Your task to perform on an android device: Search for a new grill on Home Depot Image 0: 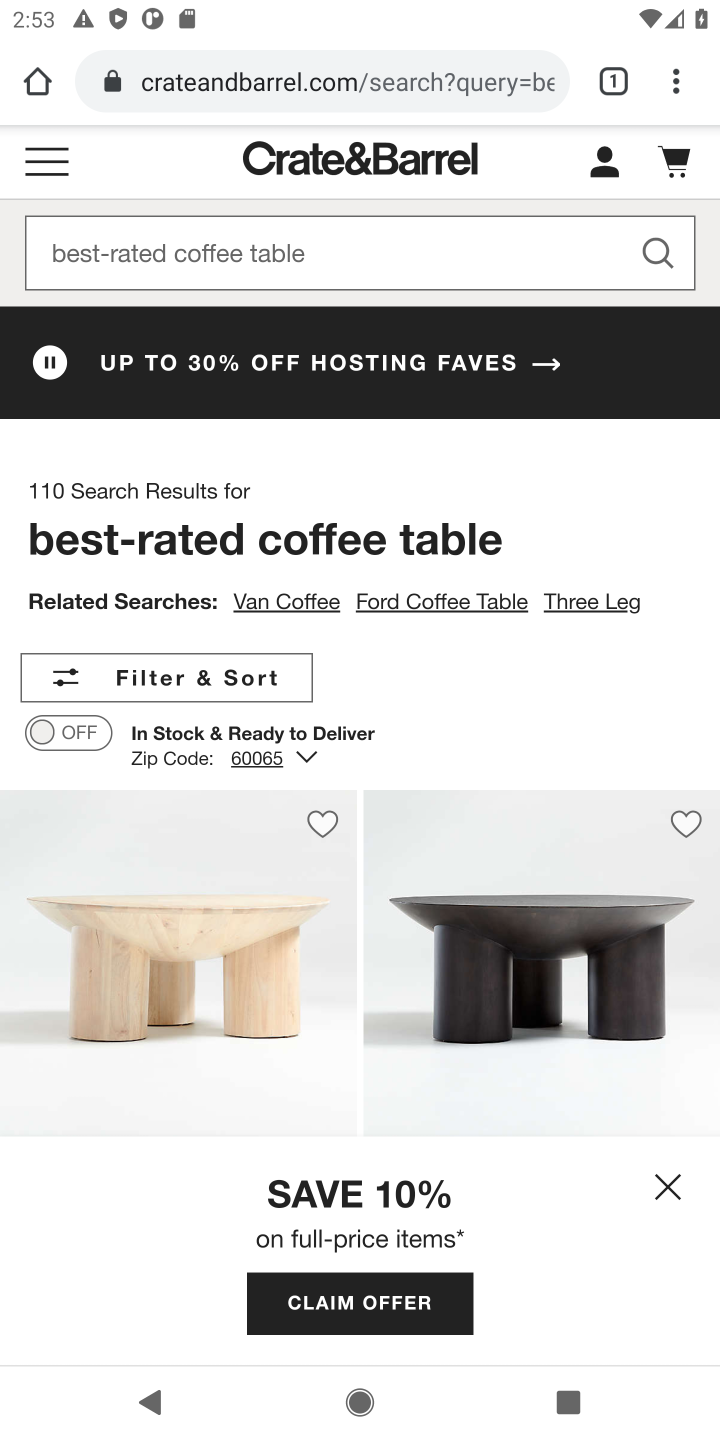
Step 0: click (439, 88)
Your task to perform on an android device: Search for a new grill on Home Depot Image 1: 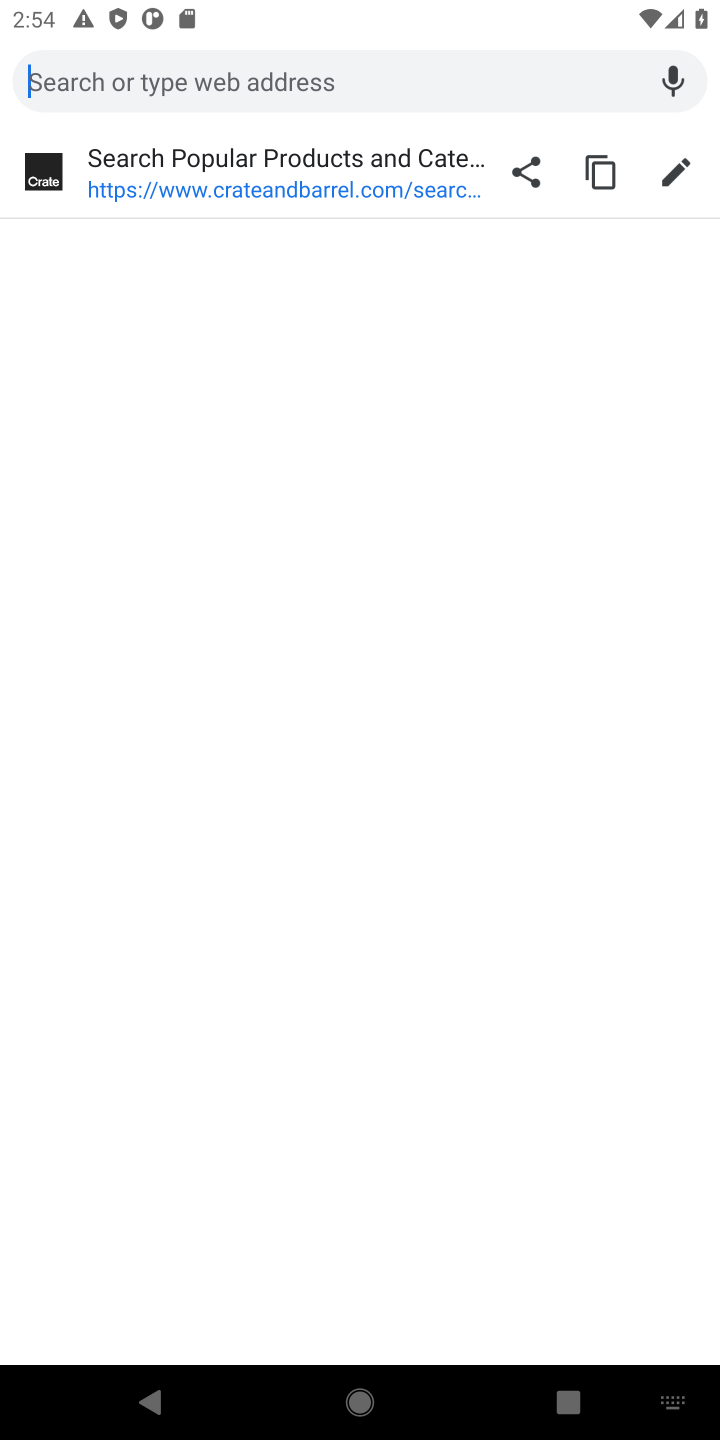
Step 1: click (433, 77)
Your task to perform on an android device: Search for a new grill on Home Depot Image 2: 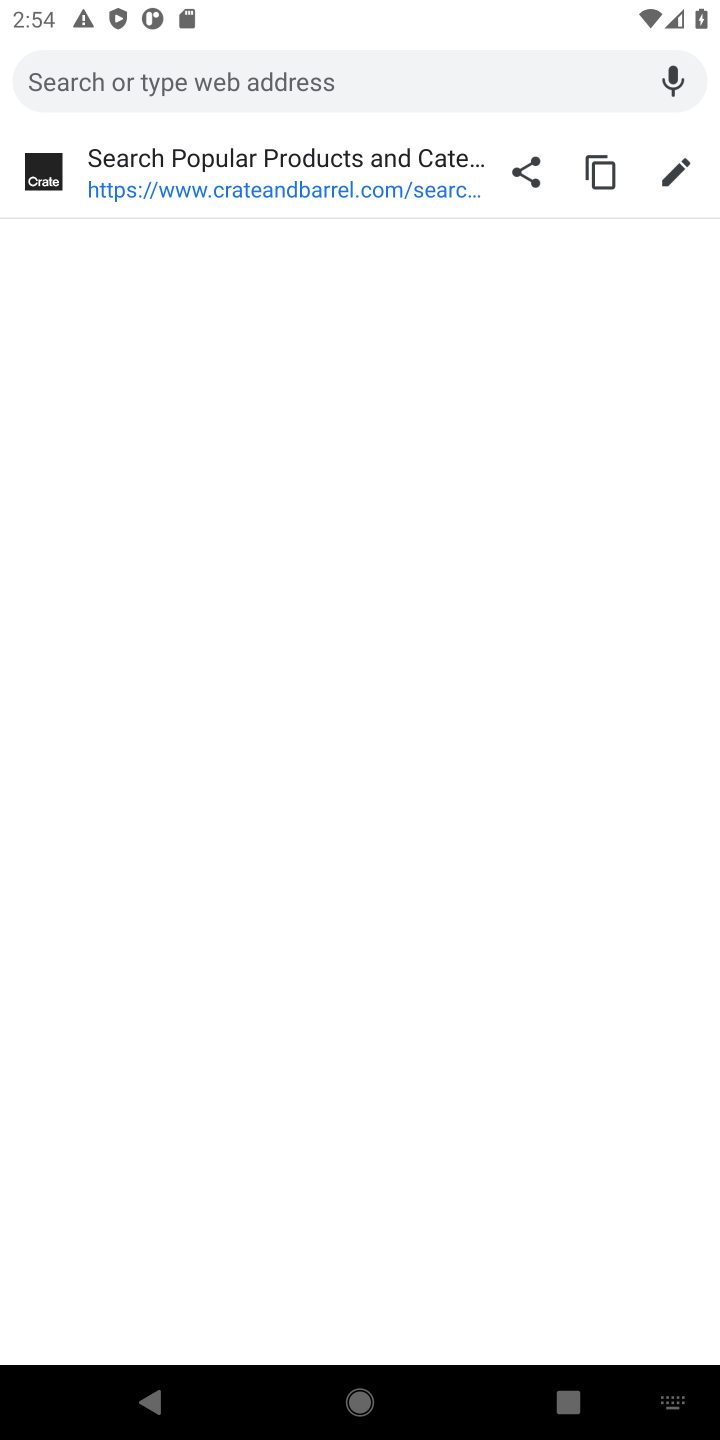
Step 2: type "Home Depot"
Your task to perform on an android device: Search for a new grill on Home Depot Image 3: 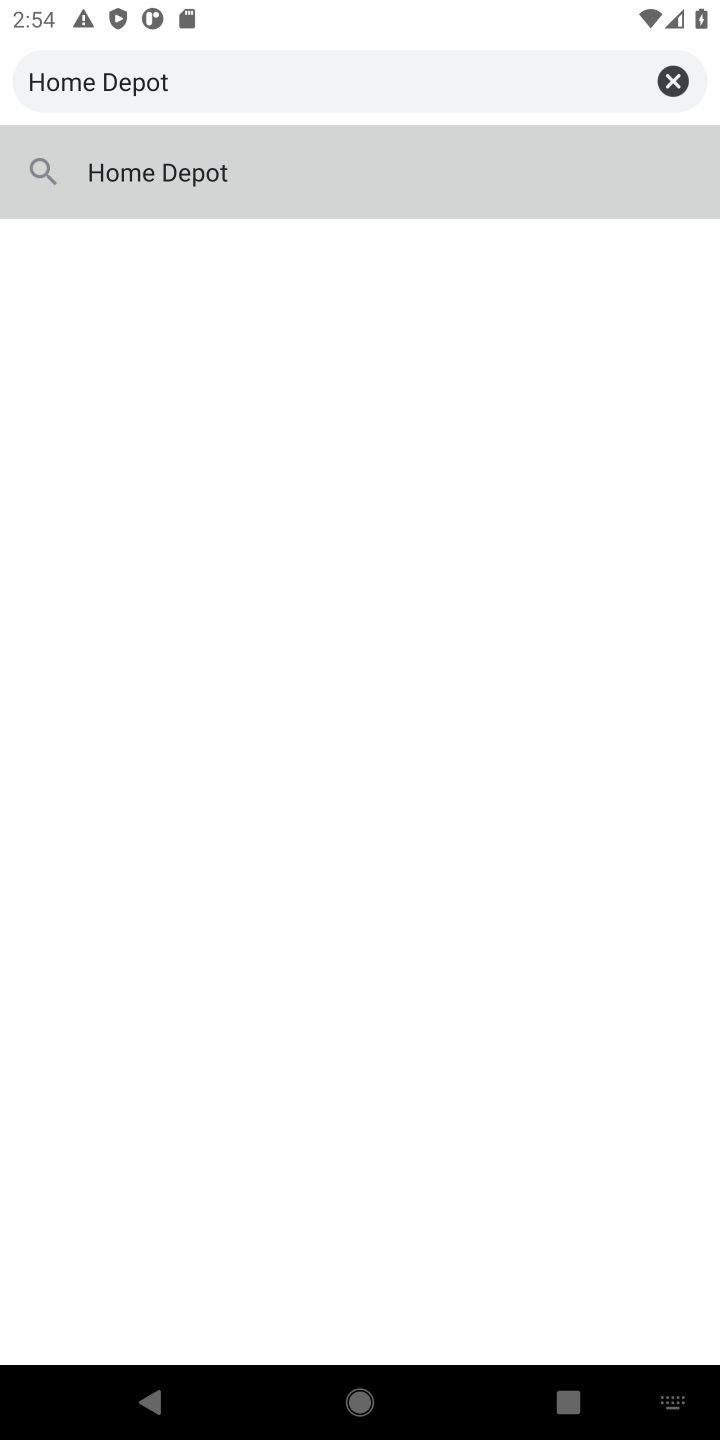
Step 3: type ""
Your task to perform on an android device: Search for a new grill on Home Depot Image 4: 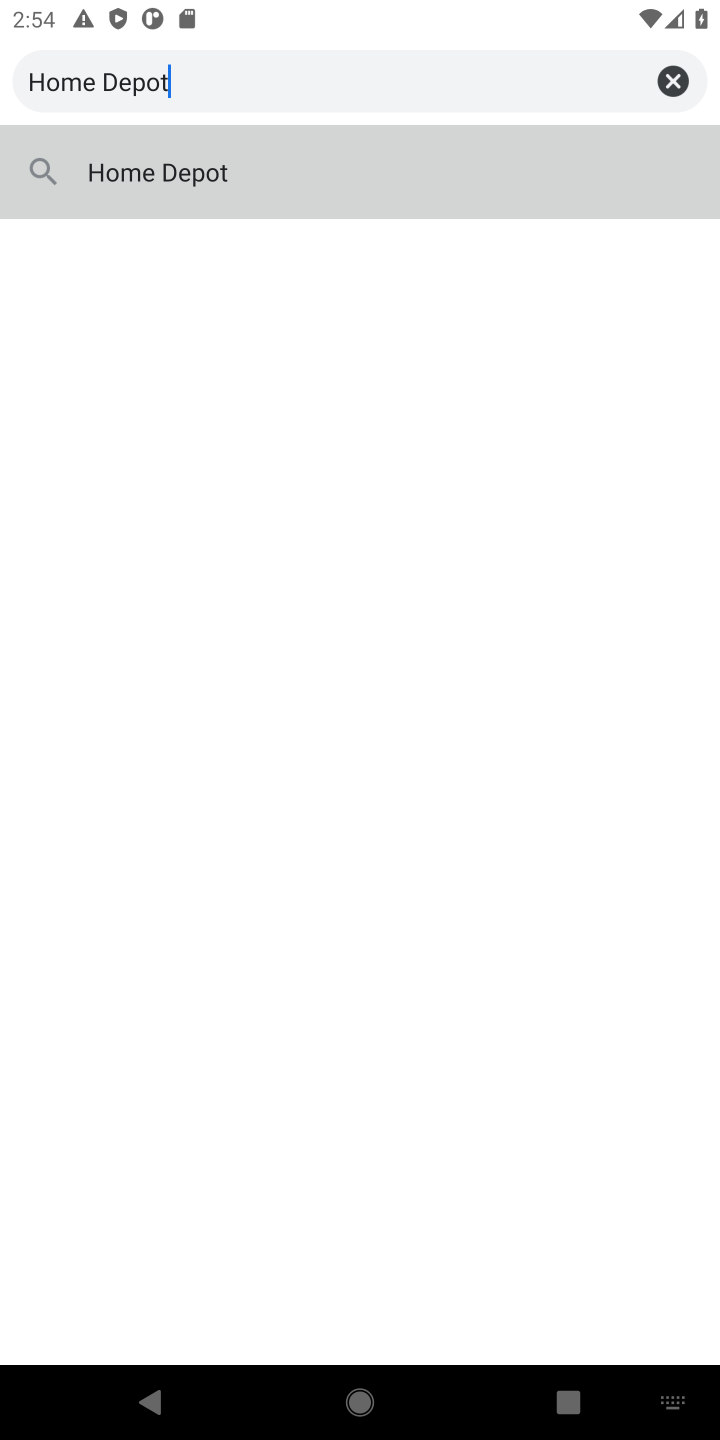
Step 4: click (424, 193)
Your task to perform on an android device: Search for a new grill on Home Depot Image 5: 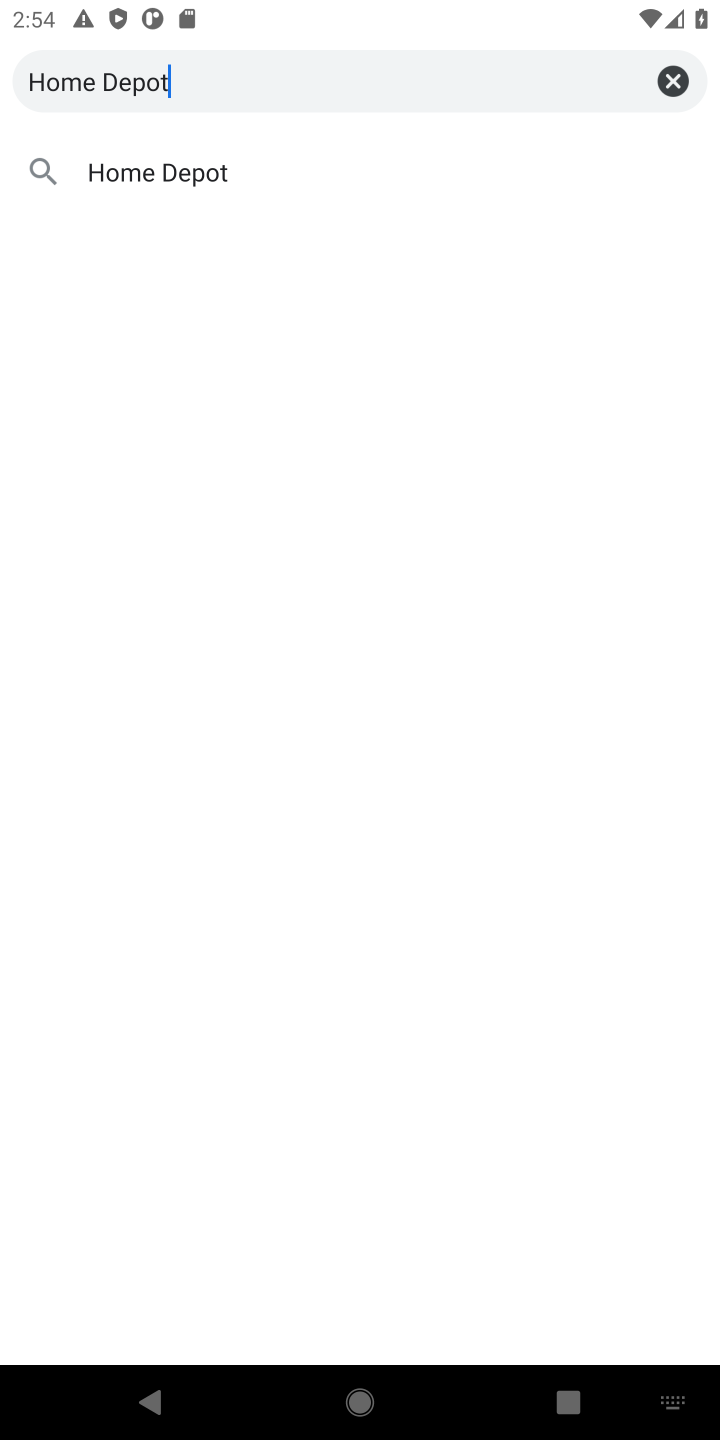
Step 5: click (221, 173)
Your task to perform on an android device: Search for a new grill on Home Depot Image 6: 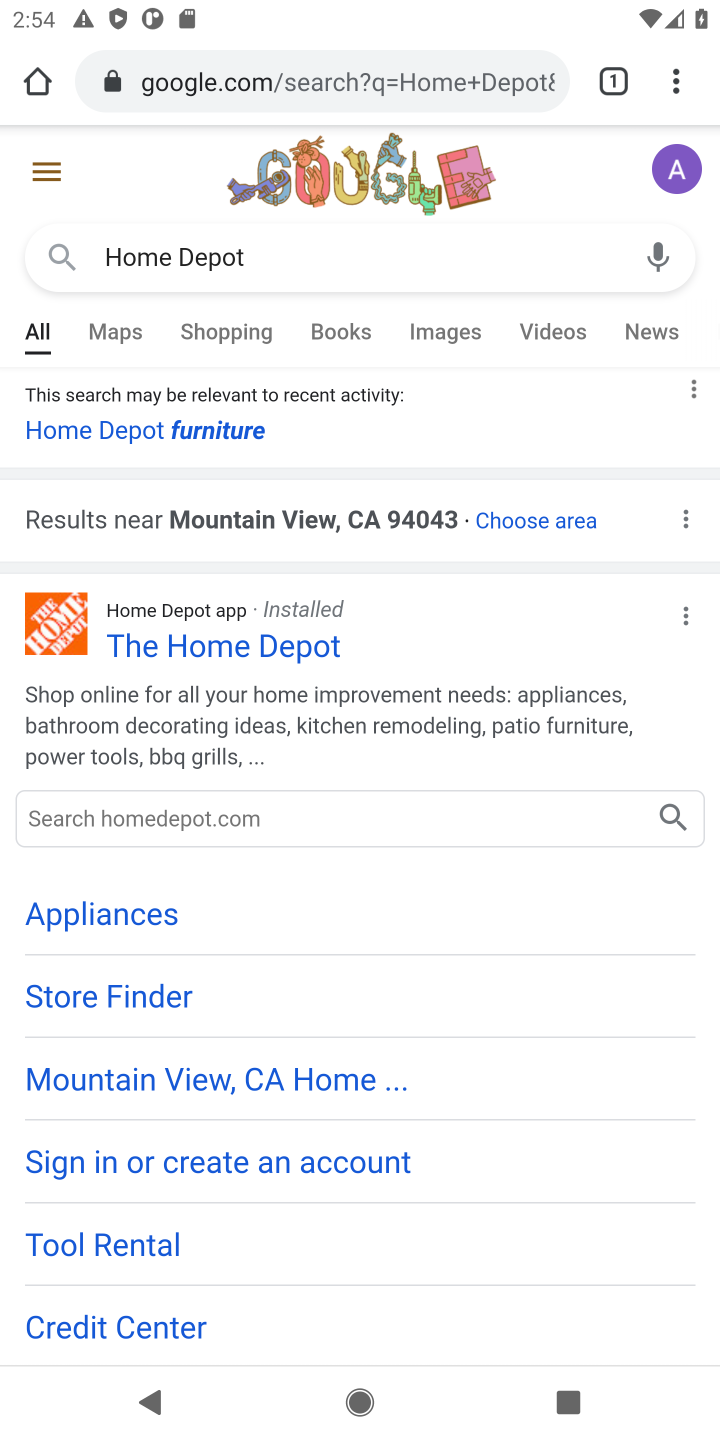
Step 6: click (229, 657)
Your task to perform on an android device: Search for a new grill on Home Depot Image 7: 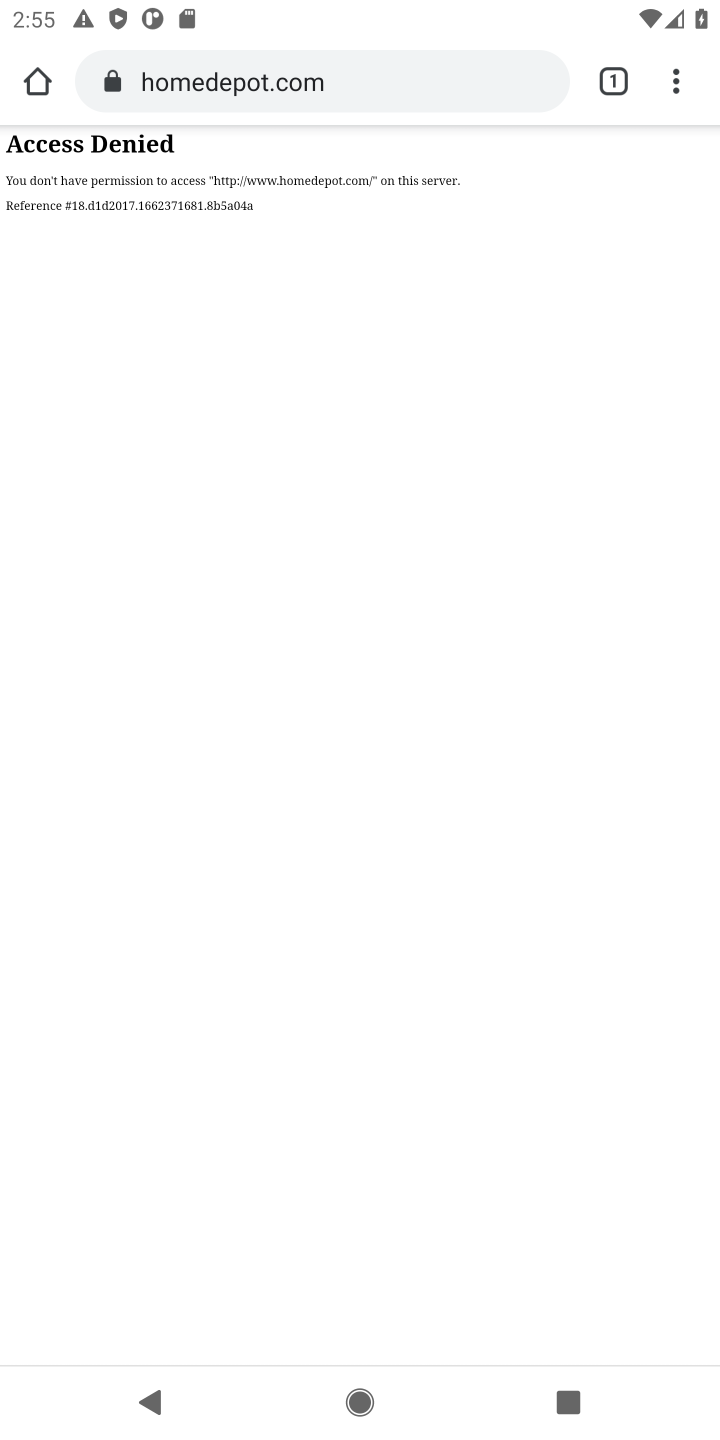
Step 7: task complete